Your task to perform on an android device: Show me popular videos on Youtube Image 0: 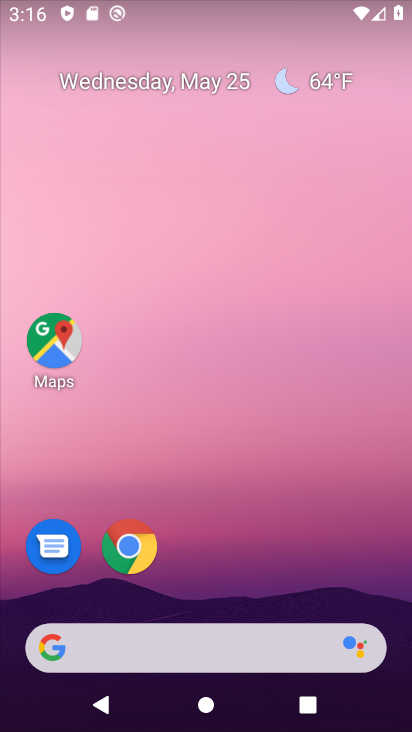
Step 0: drag from (285, 615) to (219, 155)
Your task to perform on an android device: Show me popular videos on Youtube Image 1: 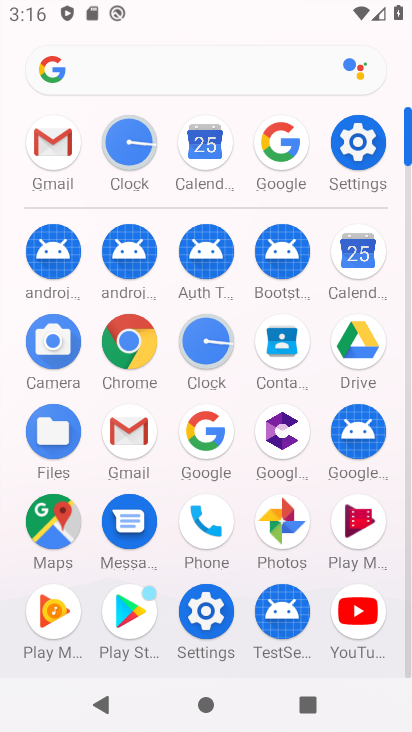
Step 1: click (366, 626)
Your task to perform on an android device: Show me popular videos on Youtube Image 2: 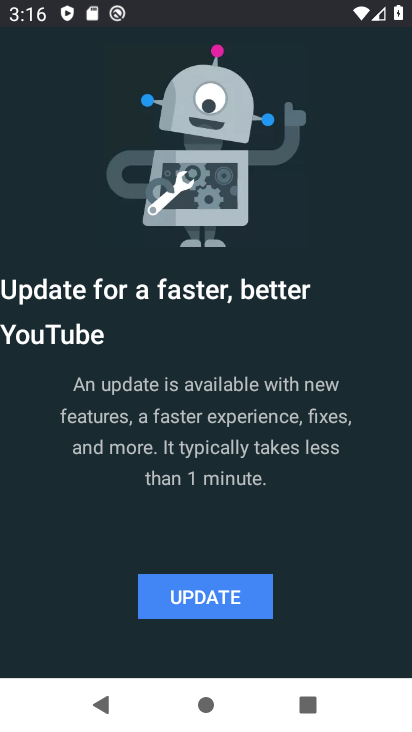
Step 2: click (204, 585)
Your task to perform on an android device: Show me popular videos on Youtube Image 3: 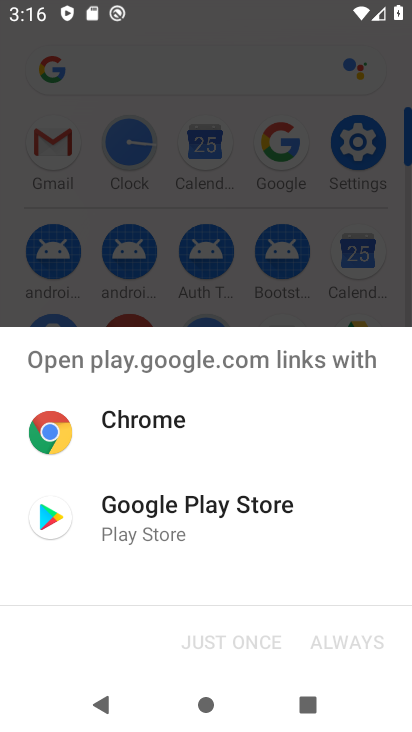
Step 3: click (195, 515)
Your task to perform on an android device: Show me popular videos on Youtube Image 4: 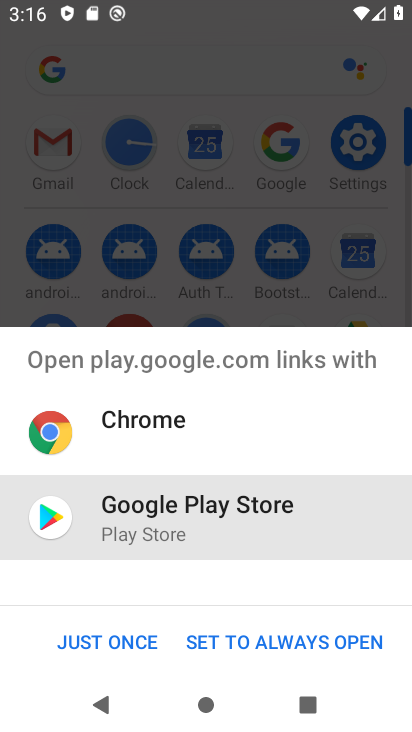
Step 4: click (167, 648)
Your task to perform on an android device: Show me popular videos on Youtube Image 5: 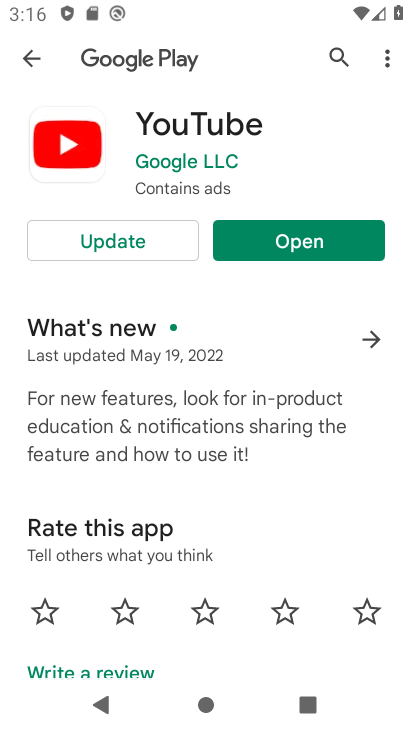
Step 5: click (162, 249)
Your task to perform on an android device: Show me popular videos on Youtube Image 6: 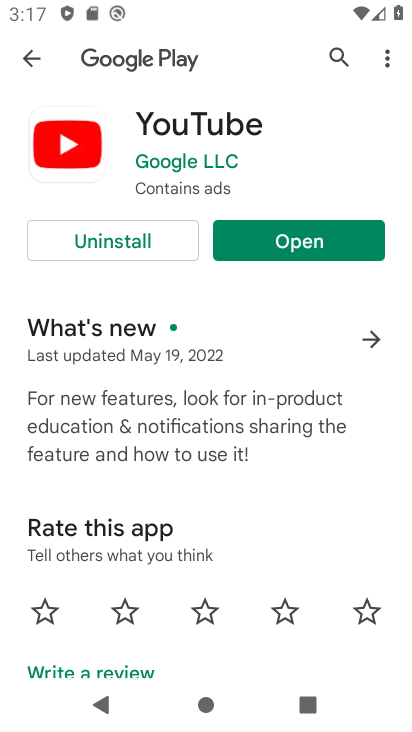
Step 6: click (261, 241)
Your task to perform on an android device: Show me popular videos on Youtube Image 7: 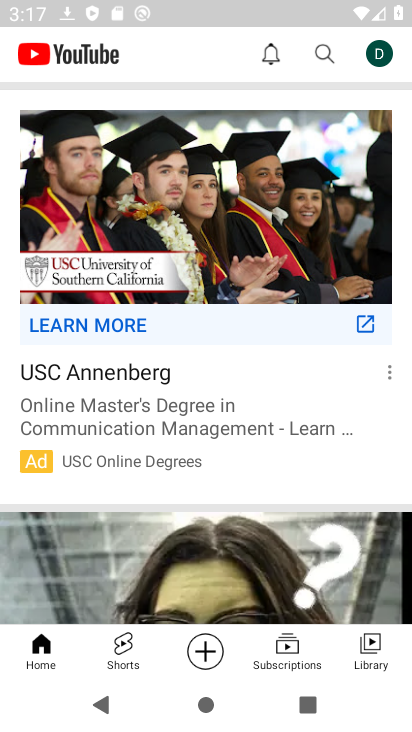
Step 7: drag from (163, 130) to (156, 438)
Your task to perform on an android device: Show me popular videos on Youtube Image 8: 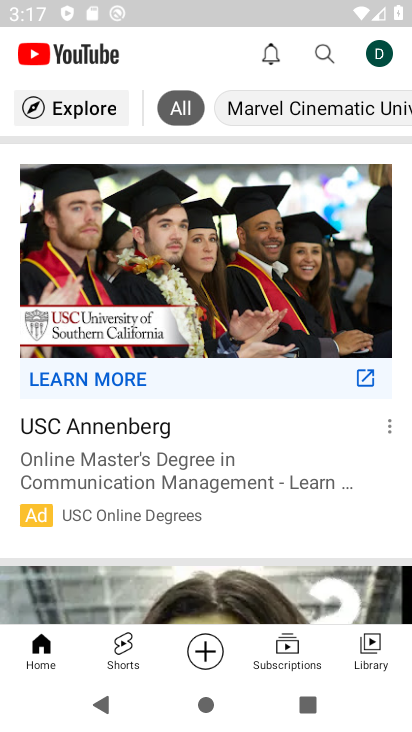
Step 8: click (100, 109)
Your task to perform on an android device: Show me popular videos on Youtube Image 9: 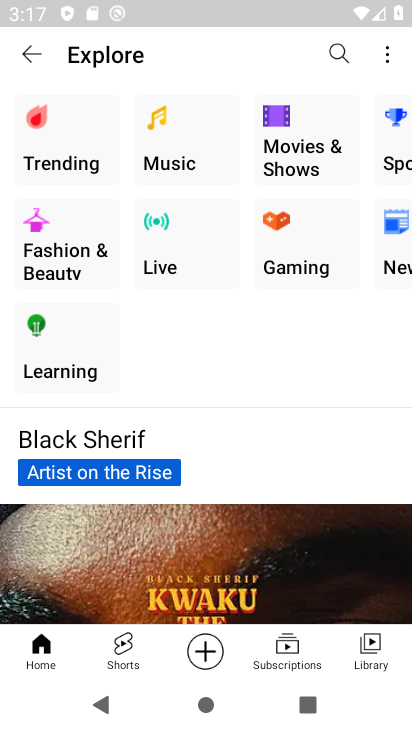
Step 9: click (85, 131)
Your task to perform on an android device: Show me popular videos on Youtube Image 10: 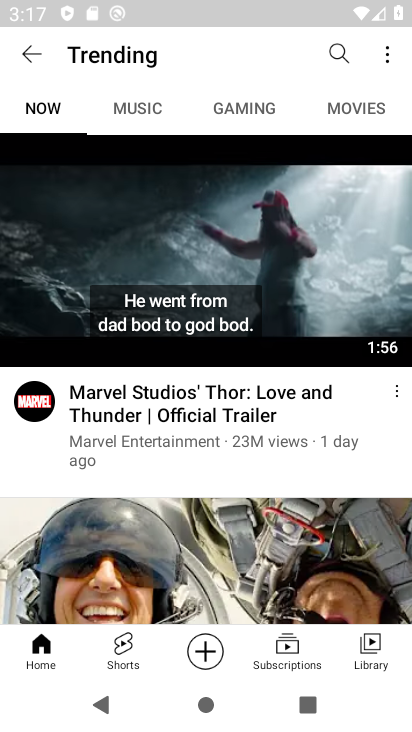
Step 10: task complete